Your task to perform on an android device: turn on wifi Image 0: 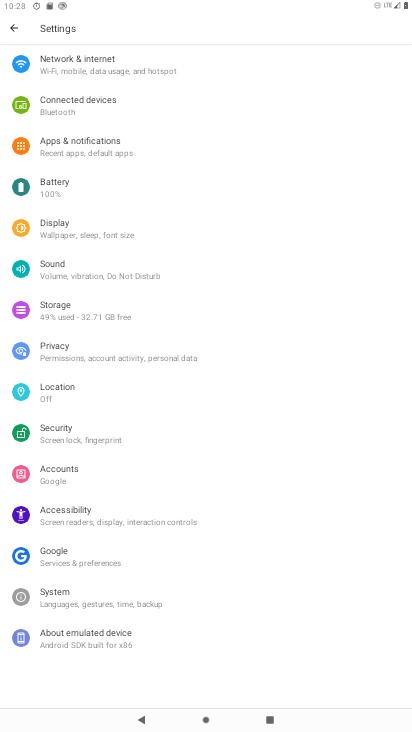
Step 0: click (140, 75)
Your task to perform on an android device: turn on wifi Image 1: 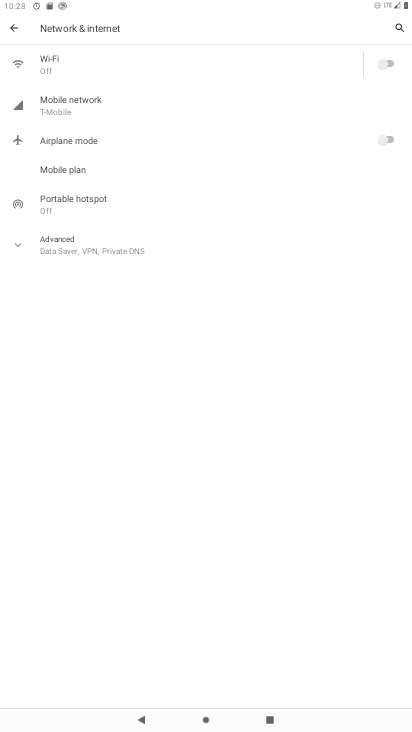
Step 1: click (381, 66)
Your task to perform on an android device: turn on wifi Image 2: 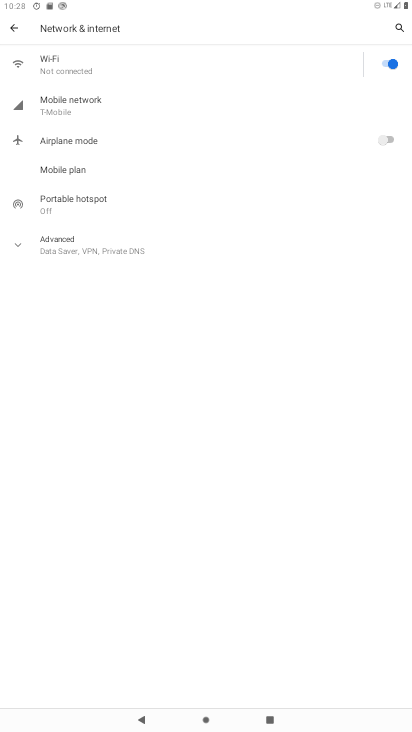
Step 2: task complete